Your task to perform on an android device: What's on my calendar tomorrow? Image 0: 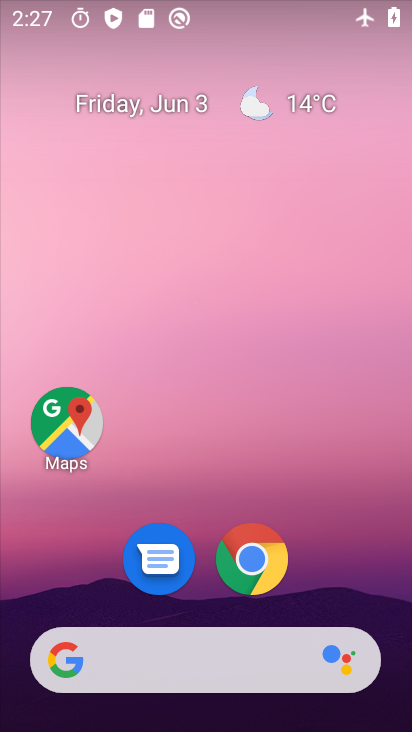
Step 0: drag from (225, 627) to (295, 27)
Your task to perform on an android device: What's on my calendar tomorrow? Image 1: 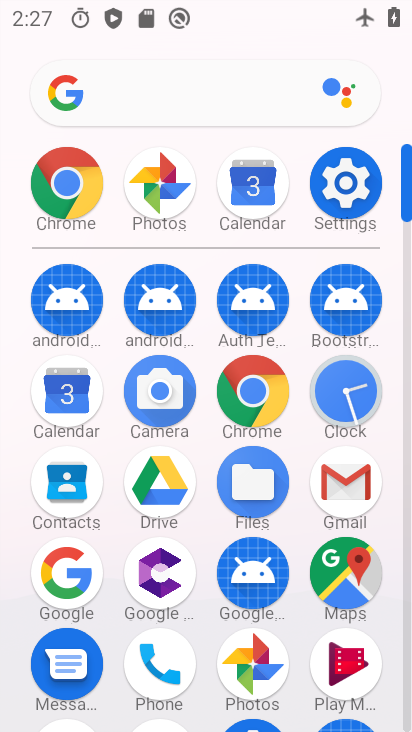
Step 1: click (64, 375)
Your task to perform on an android device: What's on my calendar tomorrow? Image 2: 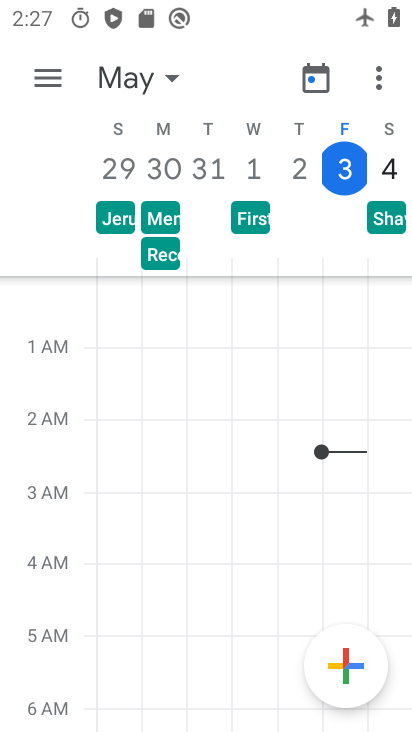
Step 2: click (376, 169)
Your task to perform on an android device: What's on my calendar tomorrow? Image 3: 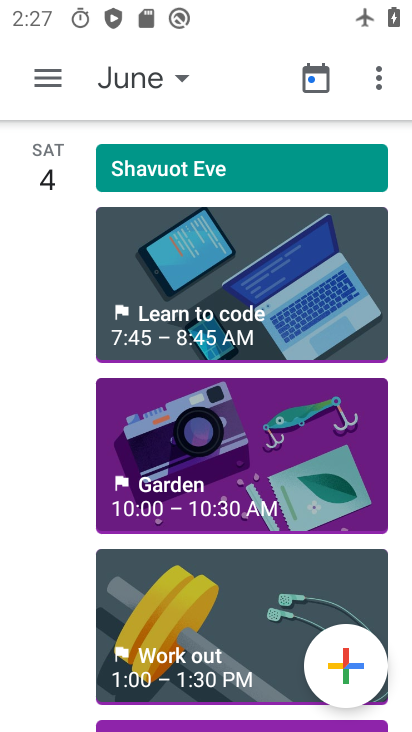
Step 3: task complete